Your task to perform on an android device: turn off picture-in-picture Image 0: 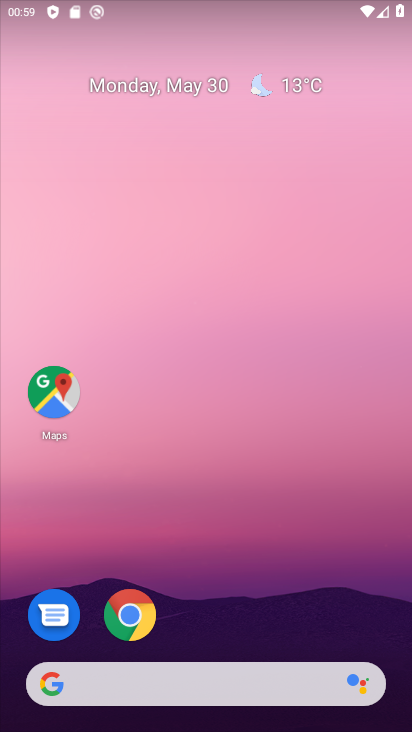
Step 0: drag from (202, 659) to (150, 82)
Your task to perform on an android device: turn off picture-in-picture Image 1: 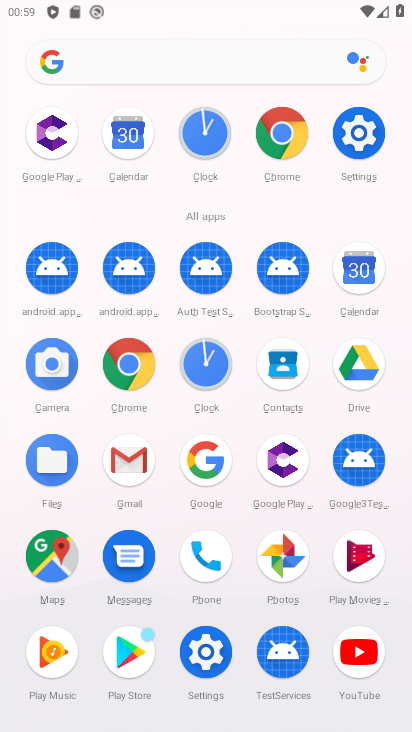
Step 1: click (358, 132)
Your task to perform on an android device: turn off picture-in-picture Image 2: 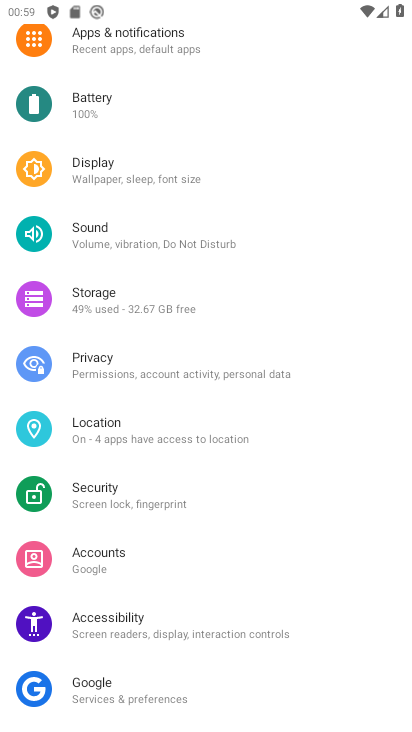
Step 2: drag from (303, 150) to (267, 456)
Your task to perform on an android device: turn off picture-in-picture Image 3: 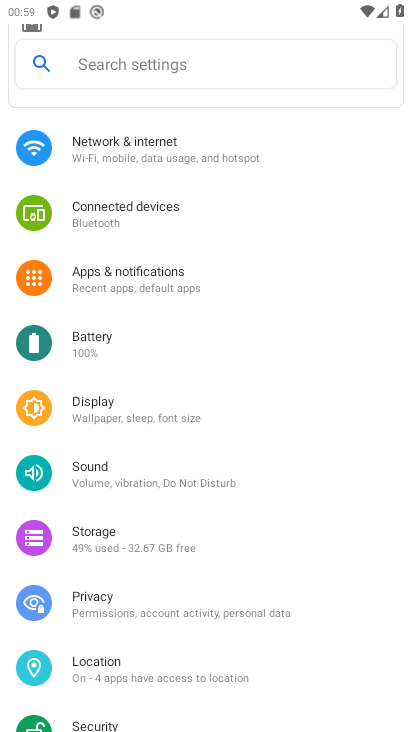
Step 3: click (188, 278)
Your task to perform on an android device: turn off picture-in-picture Image 4: 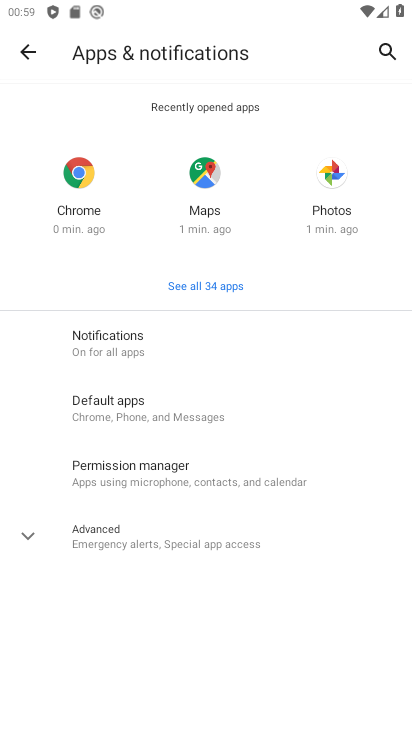
Step 4: click (132, 545)
Your task to perform on an android device: turn off picture-in-picture Image 5: 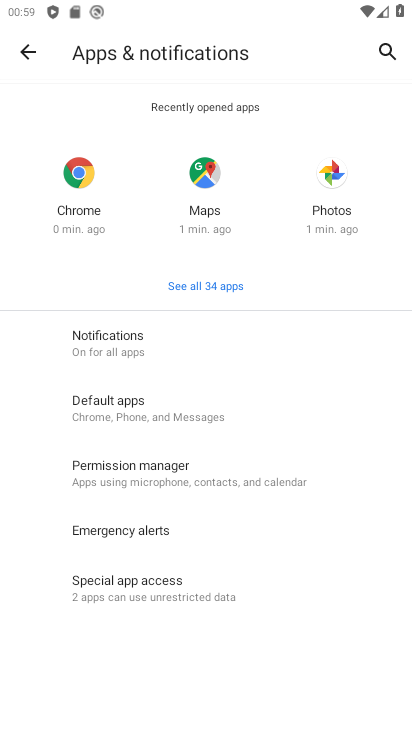
Step 5: click (147, 606)
Your task to perform on an android device: turn off picture-in-picture Image 6: 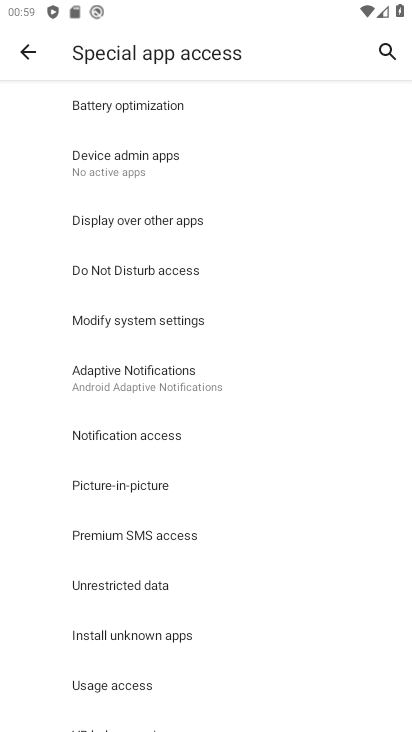
Step 6: click (134, 498)
Your task to perform on an android device: turn off picture-in-picture Image 7: 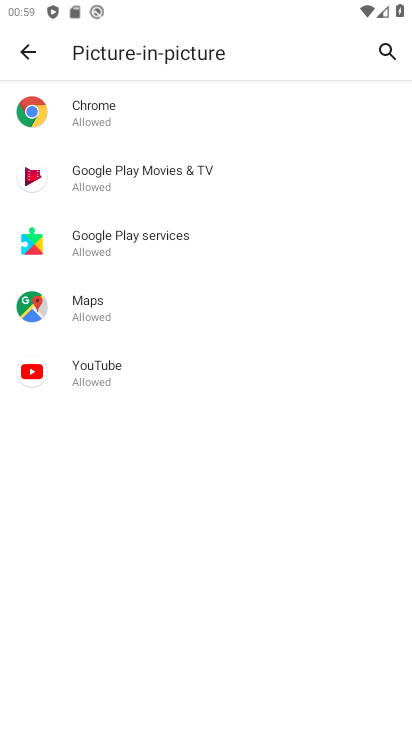
Step 7: task complete